Your task to perform on an android device: toggle translation in the chrome app Image 0: 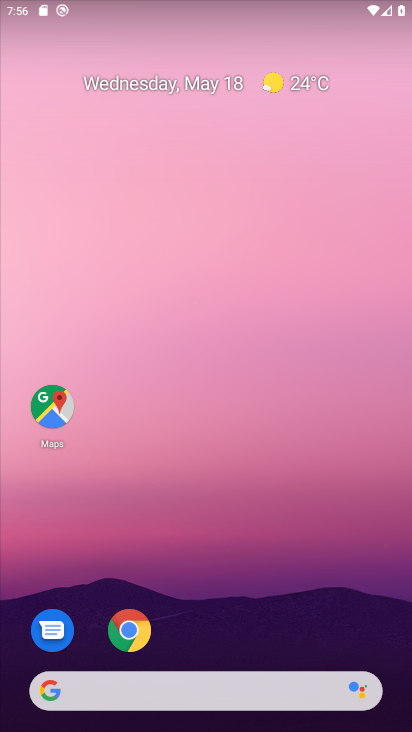
Step 0: click (128, 629)
Your task to perform on an android device: toggle translation in the chrome app Image 1: 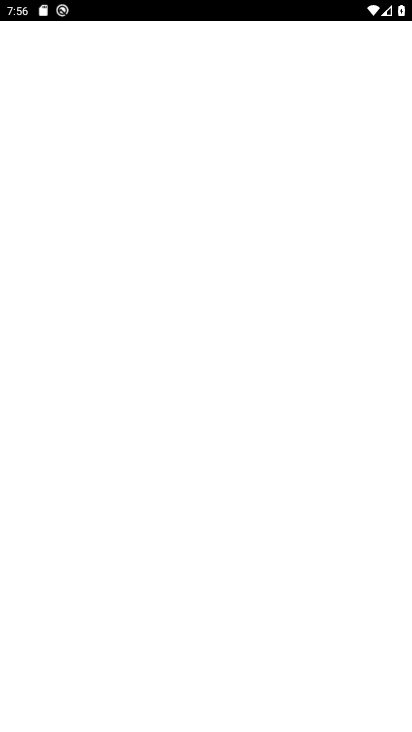
Step 1: click (128, 629)
Your task to perform on an android device: toggle translation in the chrome app Image 2: 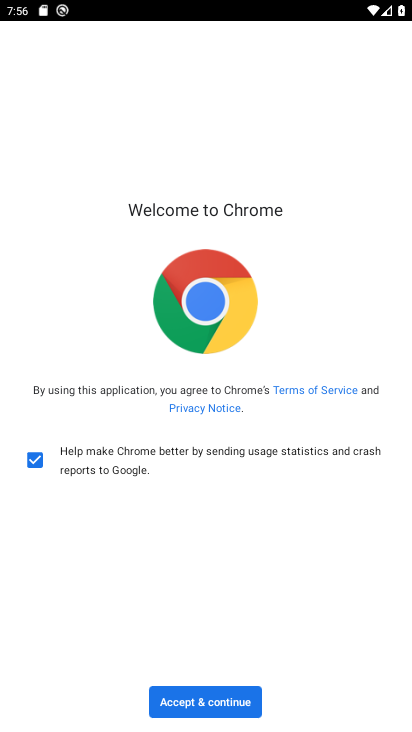
Step 2: click (221, 703)
Your task to perform on an android device: toggle translation in the chrome app Image 3: 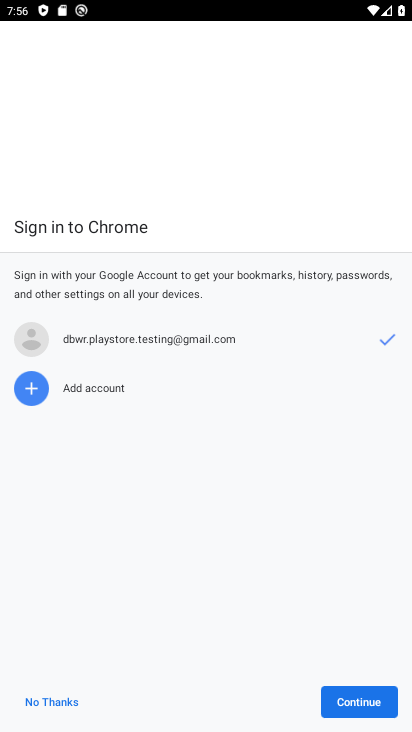
Step 3: click (221, 703)
Your task to perform on an android device: toggle translation in the chrome app Image 4: 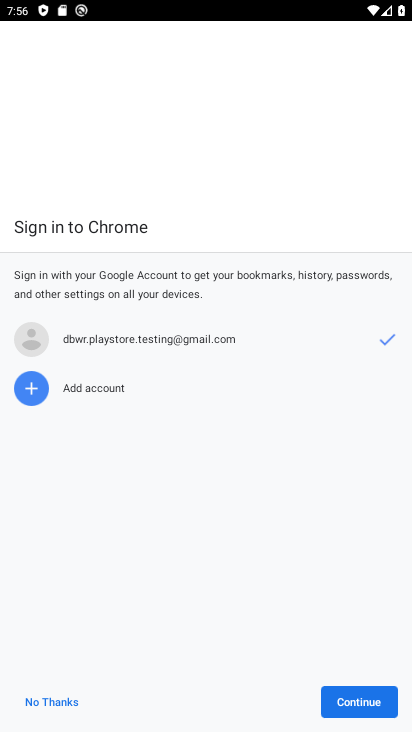
Step 4: click (364, 695)
Your task to perform on an android device: toggle translation in the chrome app Image 5: 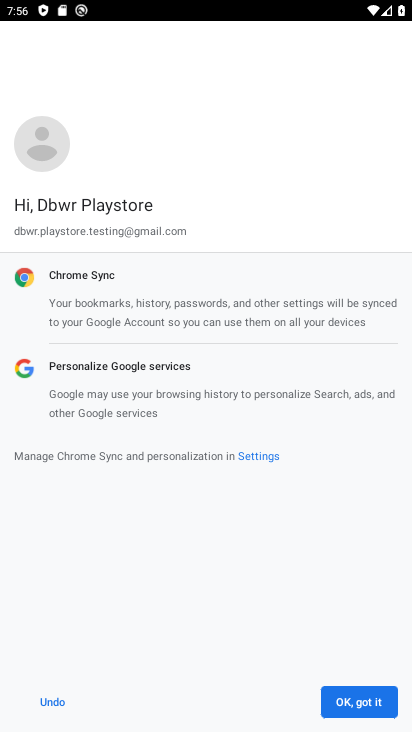
Step 5: click (363, 703)
Your task to perform on an android device: toggle translation in the chrome app Image 6: 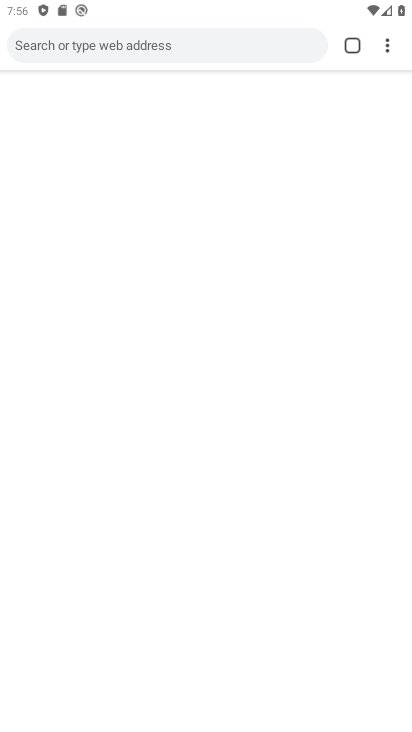
Step 6: click (363, 703)
Your task to perform on an android device: toggle translation in the chrome app Image 7: 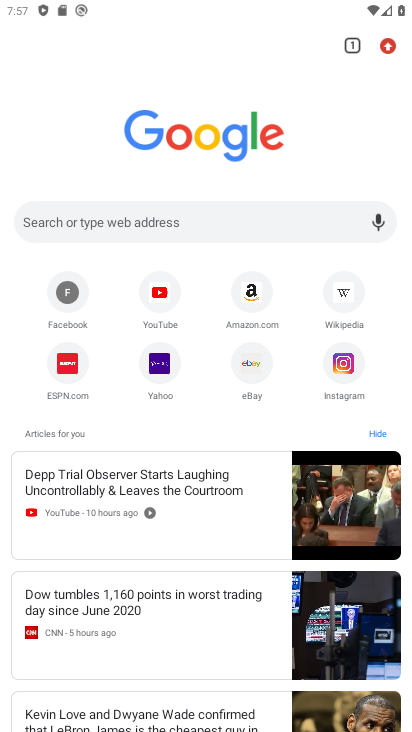
Step 7: click (352, 705)
Your task to perform on an android device: toggle translation in the chrome app Image 8: 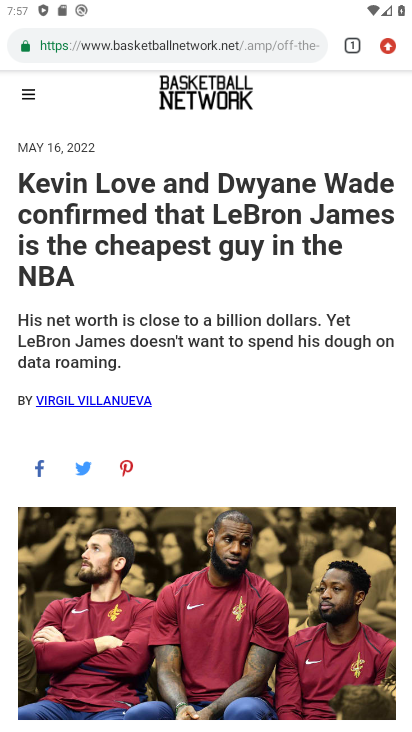
Step 8: click (388, 48)
Your task to perform on an android device: toggle translation in the chrome app Image 9: 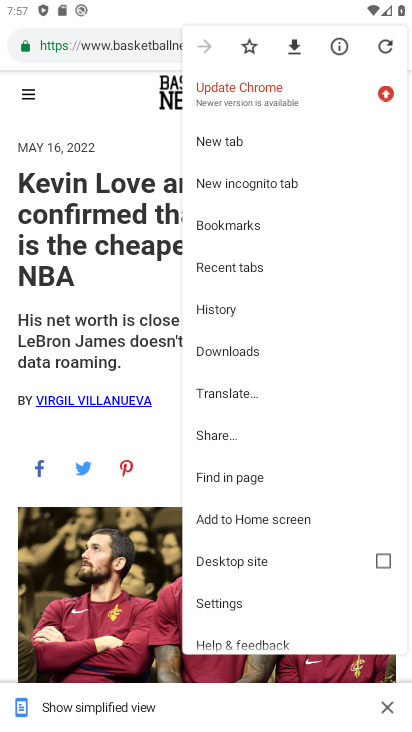
Step 9: press back button
Your task to perform on an android device: toggle translation in the chrome app Image 10: 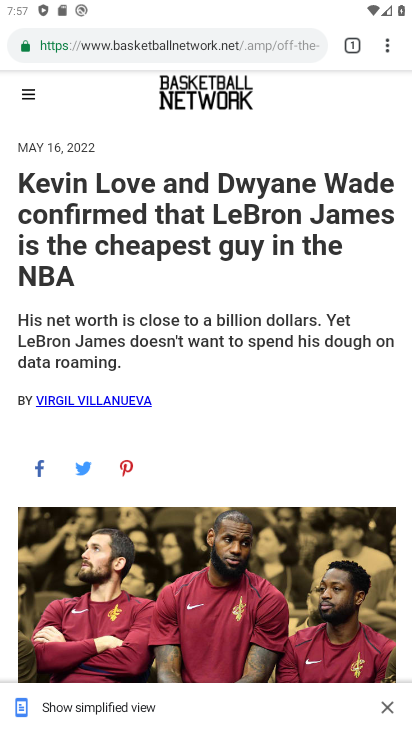
Step 10: click (387, 43)
Your task to perform on an android device: toggle translation in the chrome app Image 11: 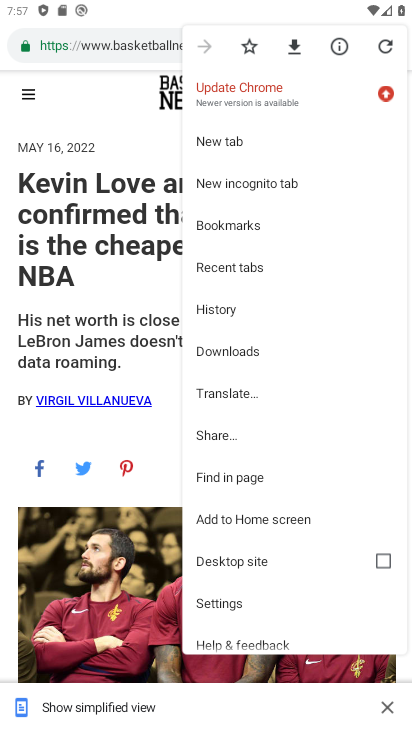
Step 11: click (219, 602)
Your task to perform on an android device: toggle translation in the chrome app Image 12: 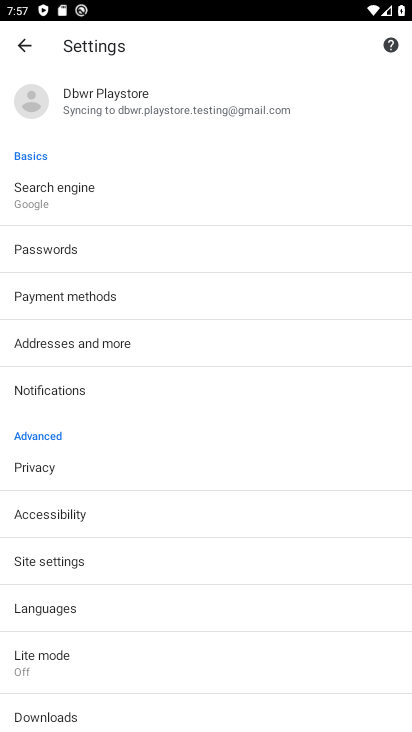
Step 12: click (226, 604)
Your task to perform on an android device: toggle translation in the chrome app Image 13: 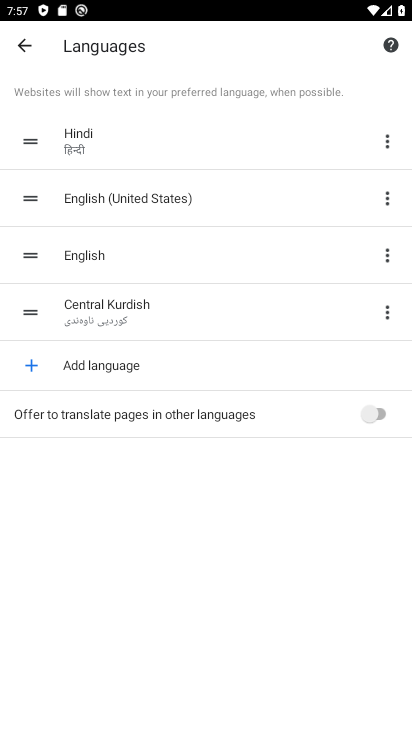
Step 13: click (62, 613)
Your task to perform on an android device: toggle translation in the chrome app Image 14: 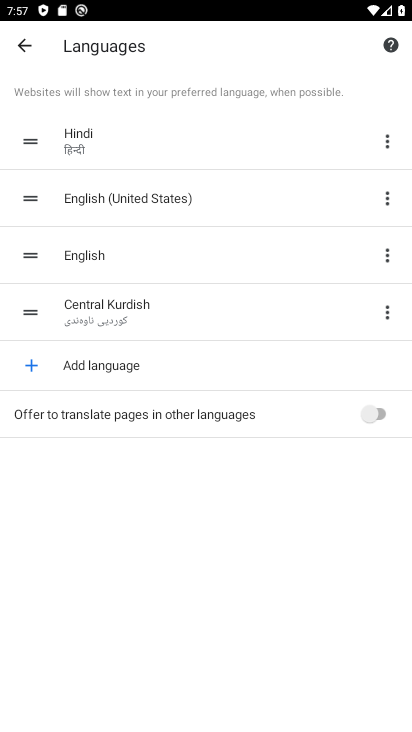
Step 14: click (375, 412)
Your task to perform on an android device: toggle translation in the chrome app Image 15: 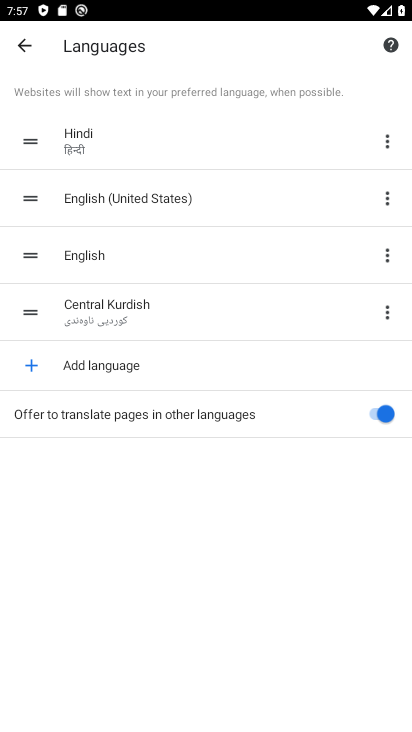
Step 15: task complete